Your task to perform on an android device: delete the emails in spam in the gmail app Image 0: 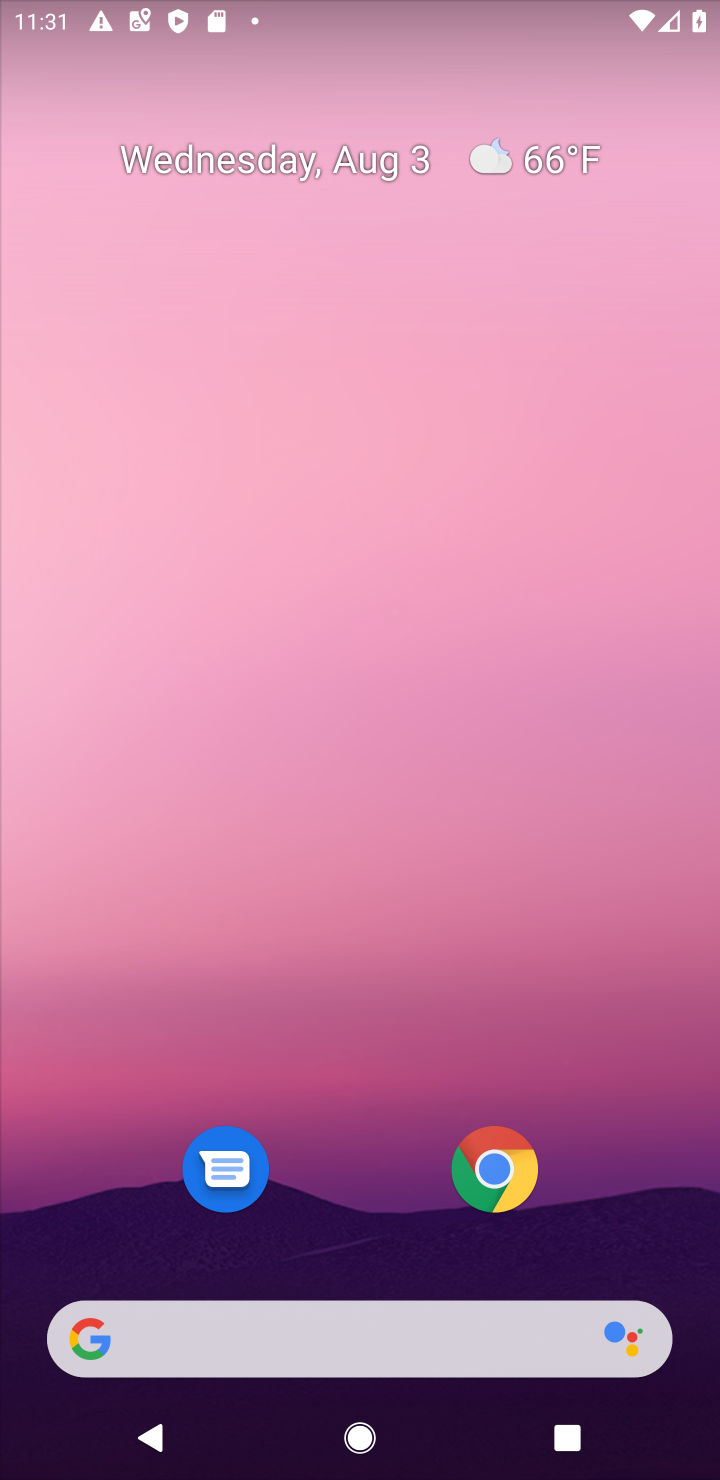
Step 0: drag from (398, 921) to (372, 39)
Your task to perform on an android device: delete the emails in spam in the gmail app Image 1: 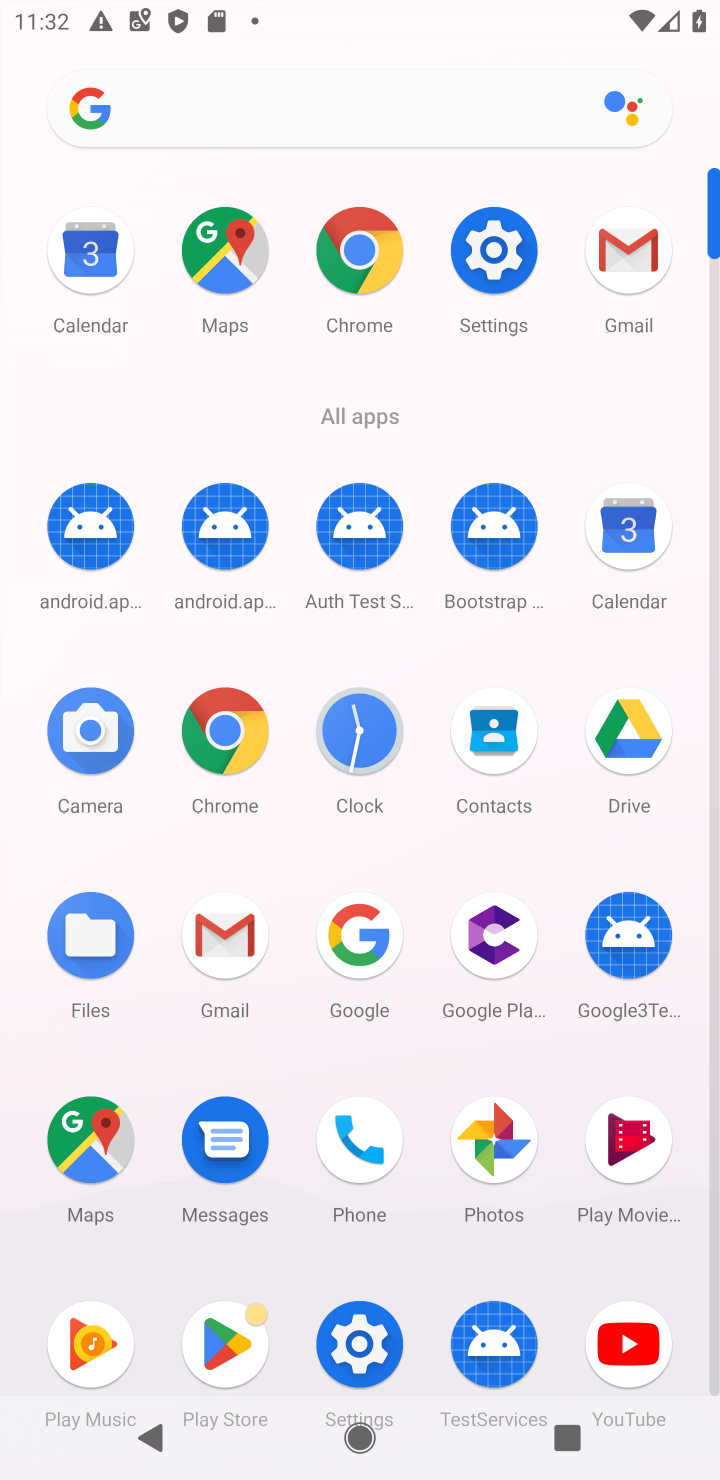
Step 1: click (622, 268)
Your task to perform on an android device: delete the emails in spam in the gmail app Image 2: 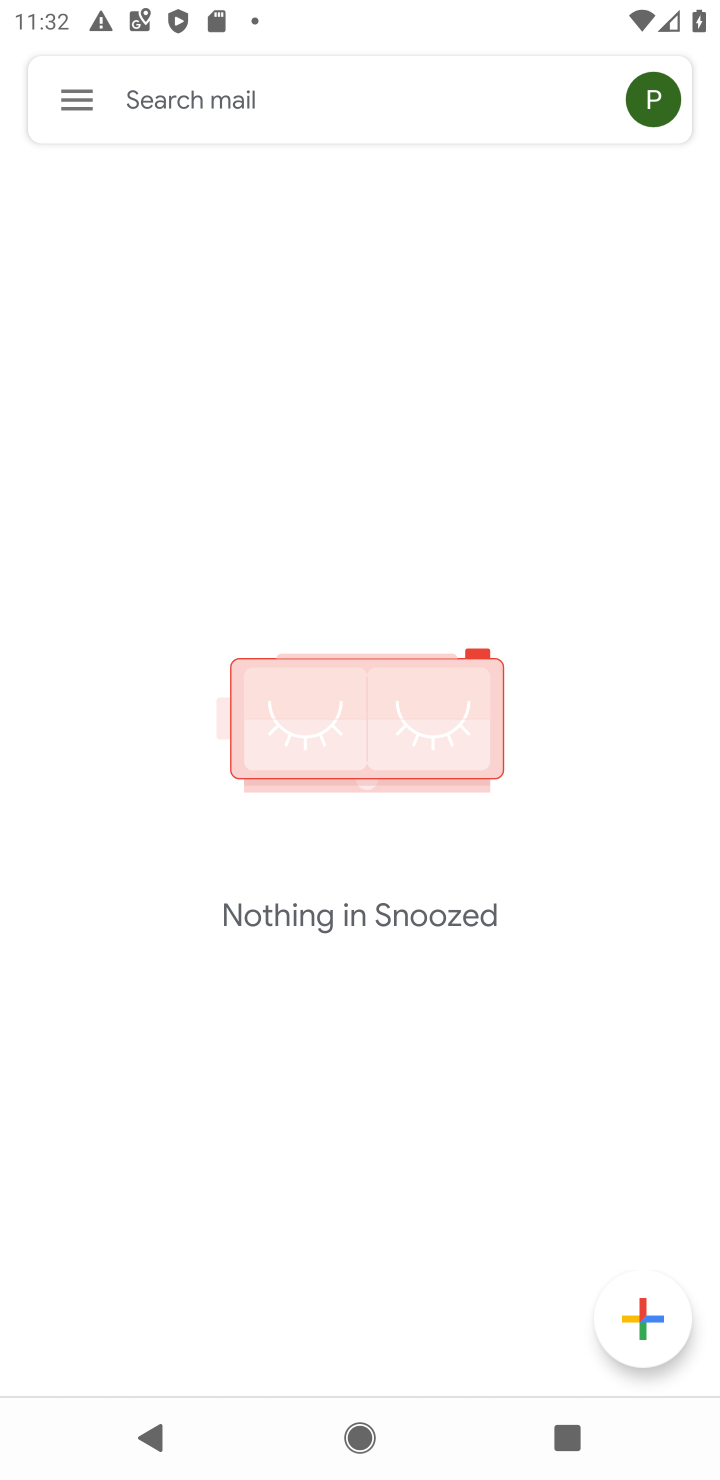
Step 2: click (67, 98)
Your task to perform on an android device: delete the emails in spam in the gmail app Image 3: 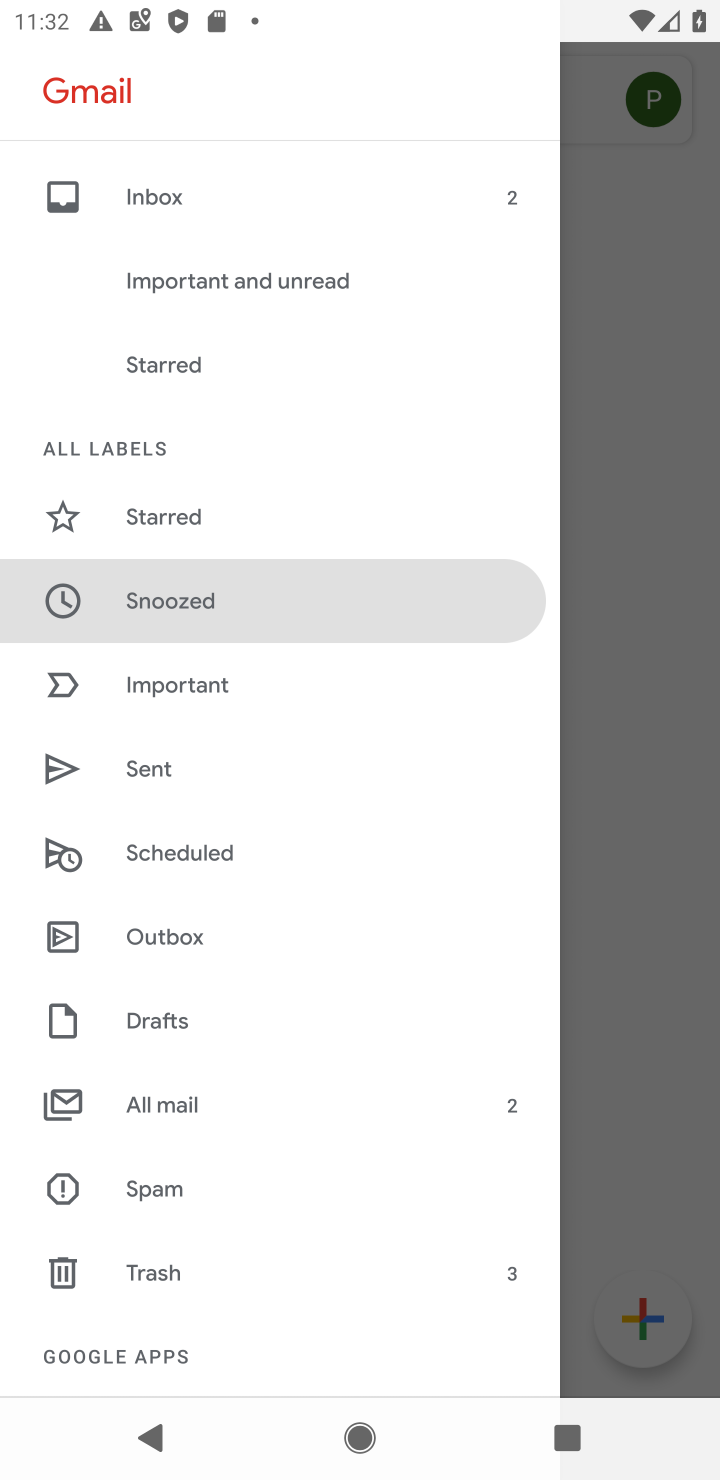
Step 3: click (163, 1185)
Your task to perform on an android device: delete the emails in spam in the gmail app Image 4: 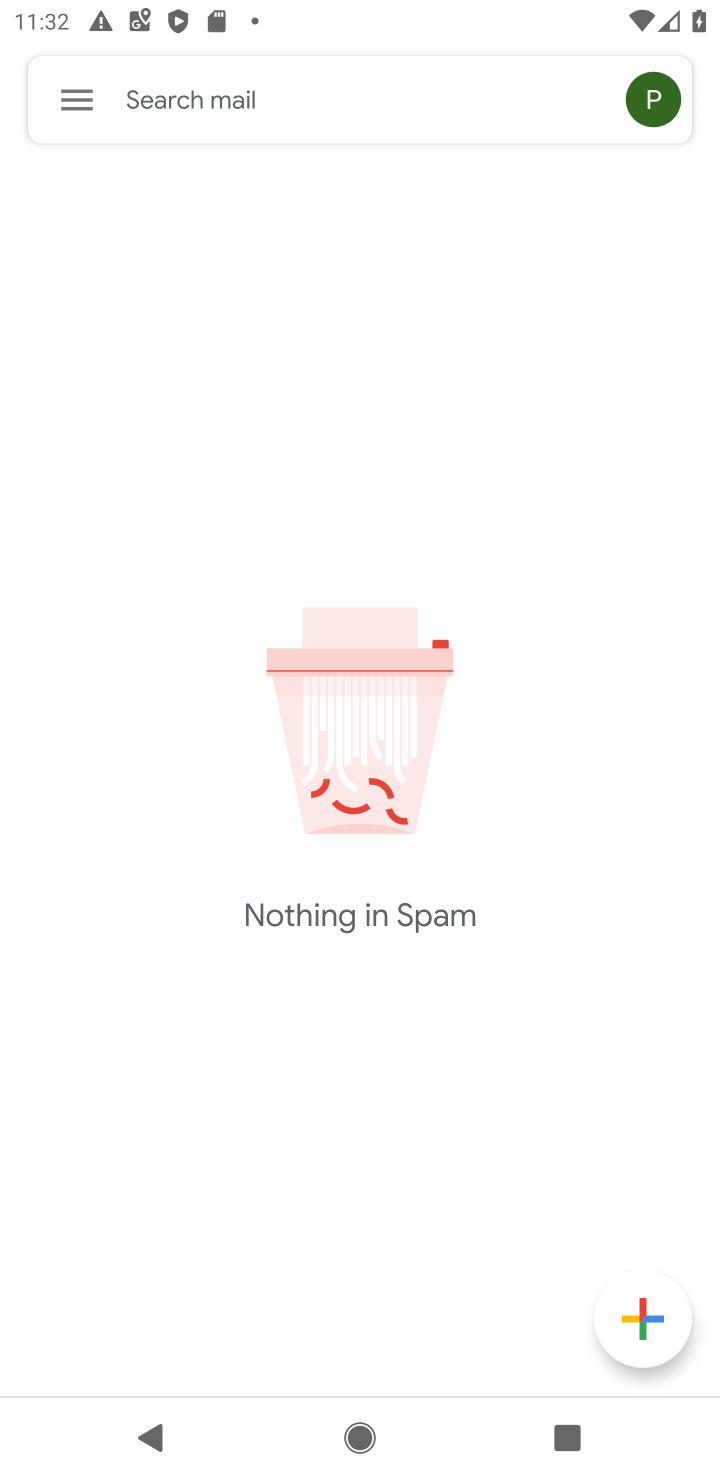
Step 4: task complete